Your task to perform on an android device: Go to Yahoo.com Image 0: 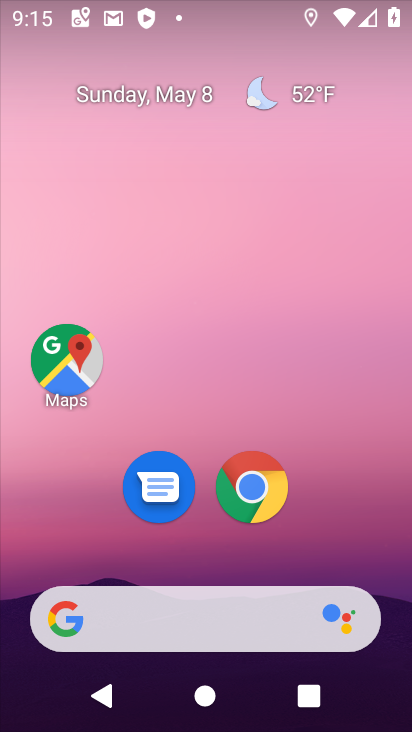
Step 0: drag from (392, 606) to (261, 95)
Your task to perform on an android device: Go to Yahoo.com Image 1: 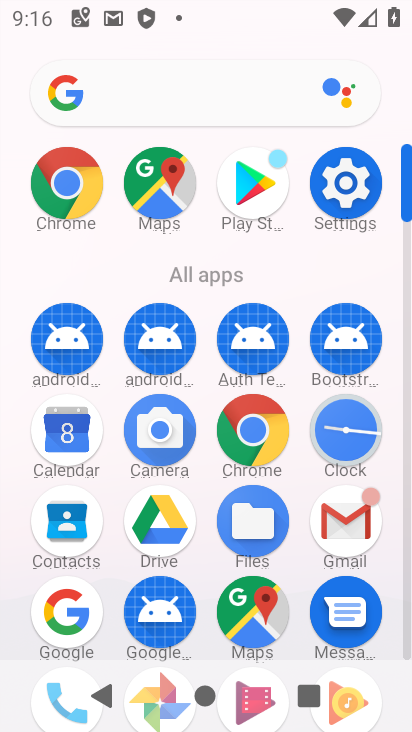
Step 1: click (85, 188)
Your task to perform on an android device: Go to Yahoo.com Image 2: 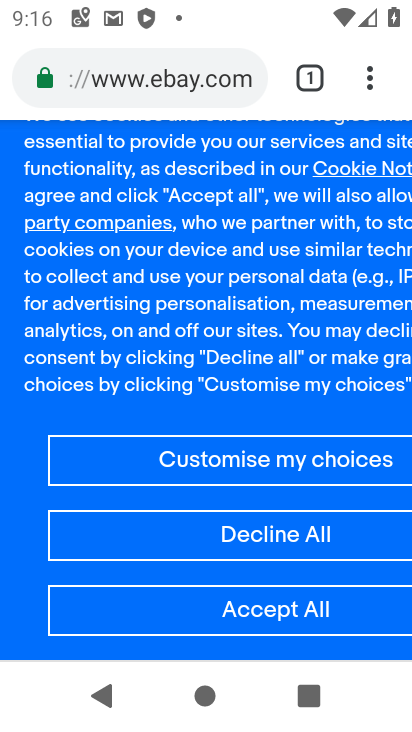
Step 2: press back button
Your task to perform on an android device: Go to Yahoo.com Image 3: 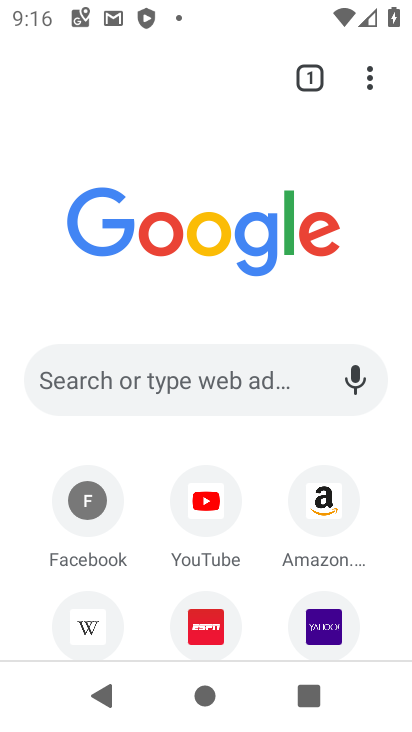
Step 3: click (323, 611)
Your task to perform on an android device: Go to Yahoo.com Image 4: 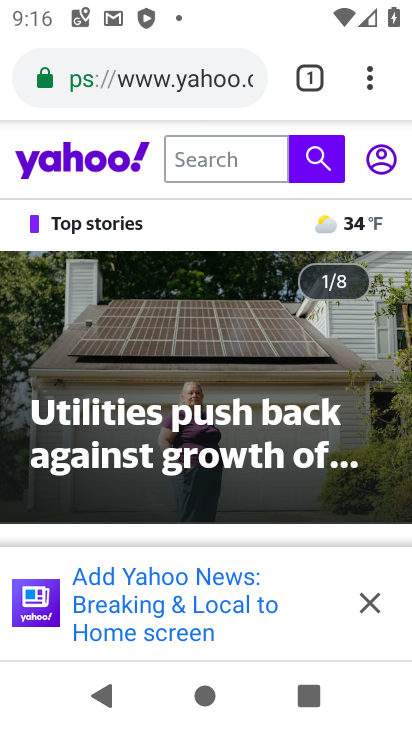
Step 4: task complete